Your task to perform on an android device: see tabs open on other devices in the chrome app Image 0: 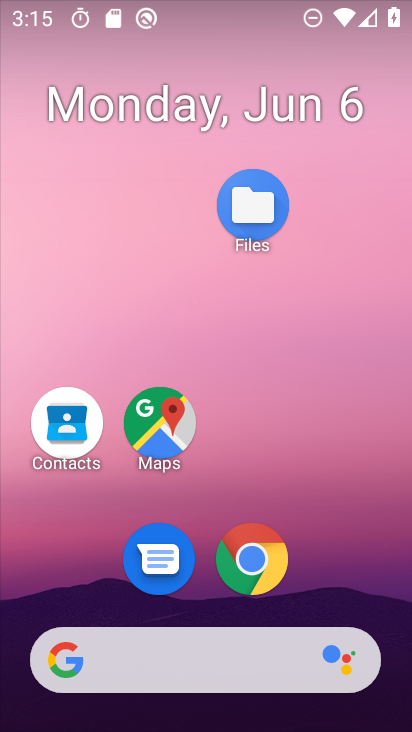
Step 0: drag from (289, 636) to (266, 126)
Your task to perform on an android device: see tabs open on other devices in the chrome app Image 1: 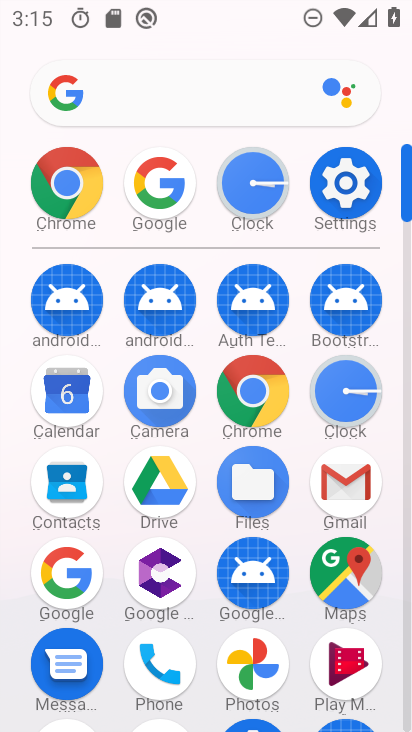
Step 1: click (44, 198)
Your task to perform on an android device: see tabs open on other devices in the chrome app Image 2: 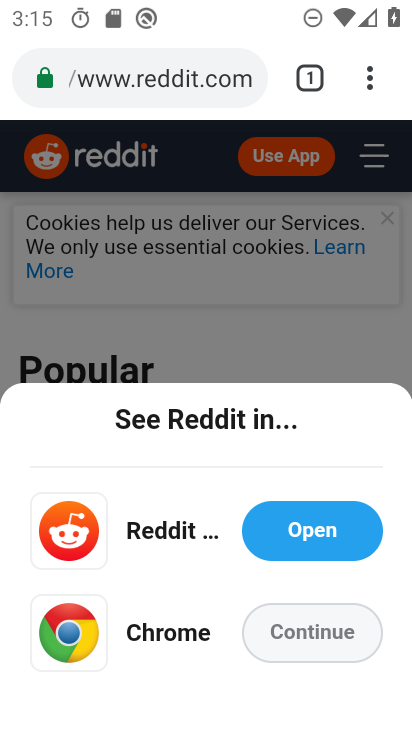
Step 2: task complete